Your task to perform on an android device: Open network settings Image 0: 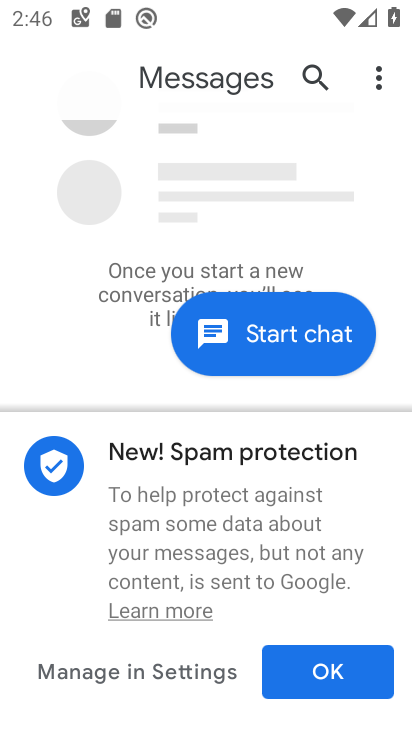
Step 0: press home button
Your task to perform on an android device: Open network settings Image 1: 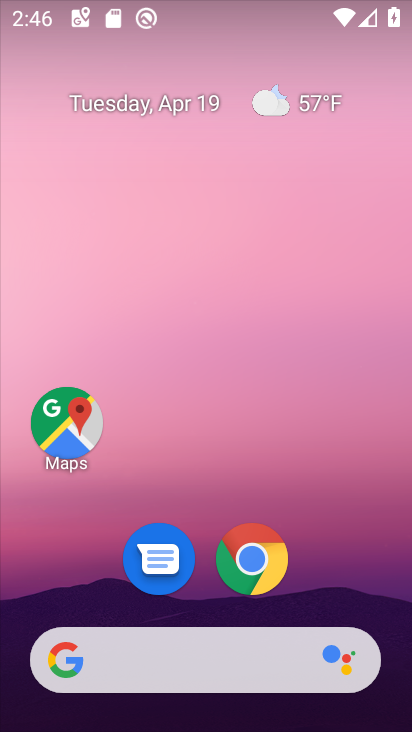
Step 1: drag from (209, 601) to (247, 103)
Your task to perform on an android device: Open network settings Image 2: 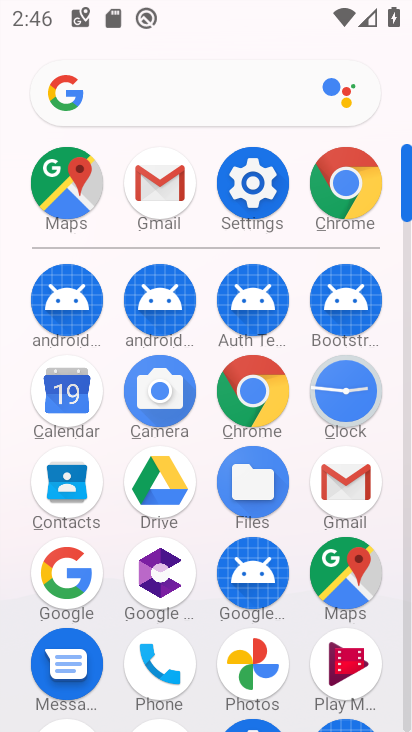
Step 2: click (249, 173)
Your task to perform on an android device: Open network settings Image 3: 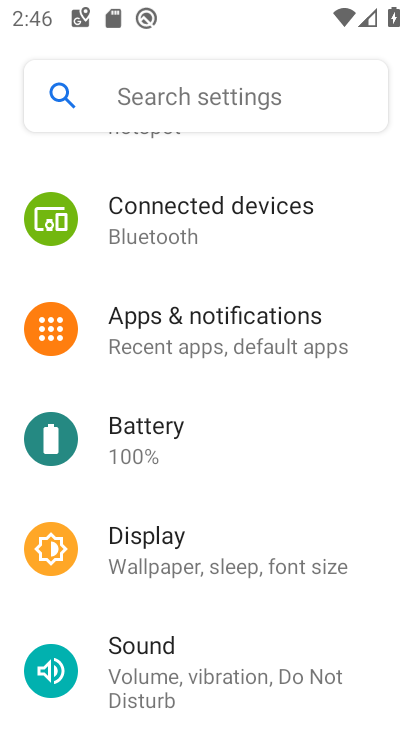
Step 3: drag from (209, 189) to (191, 579)
Your task to perform on an android device: Open network settings Image 4: 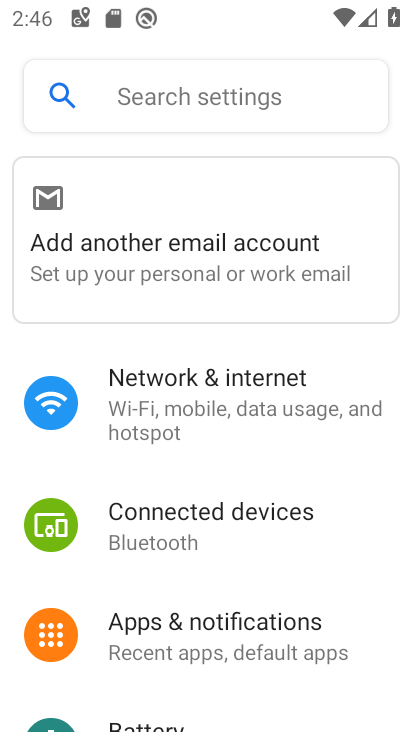
Step 4: click (180, 411)
Your task to perform on an android device: Open network settings Image 5: 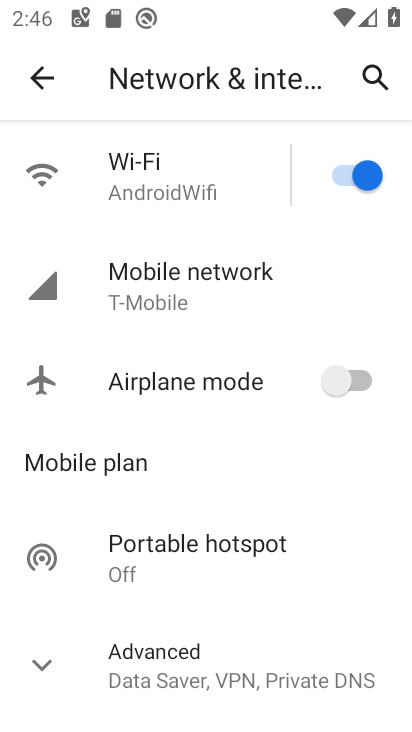
Step 5: click (38, 656)
Your task to perform on an android device: Open network settings Image 6: 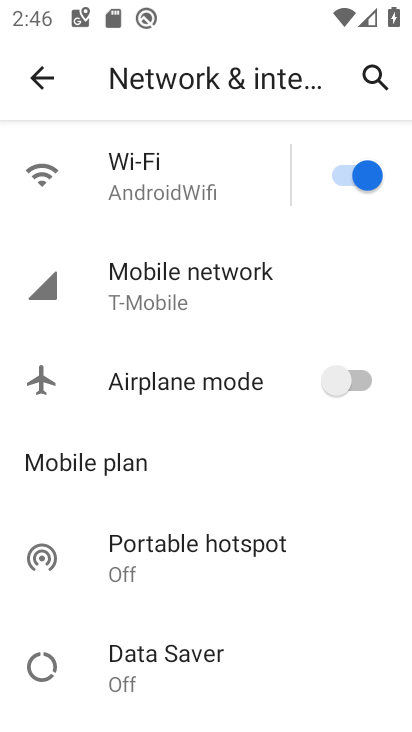
Step 6: task complete